Your task to perform on an android device: change keyboard looks Image 0: 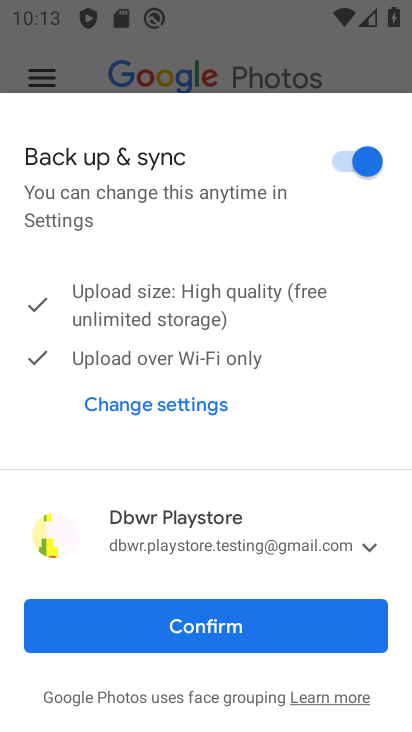
Step 0: press home button
Your task to perform on an android device: change keyboard looks Image 1: 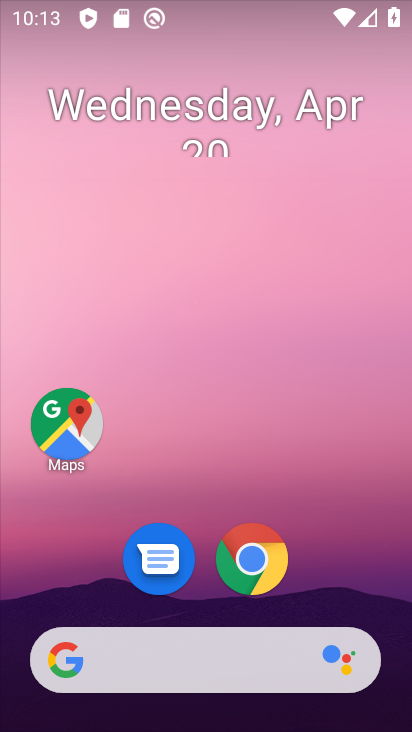
Step 1: drag from (208, 727) to (197, 169)
Your task to perform on an android device: change keyboard looks Image 2: 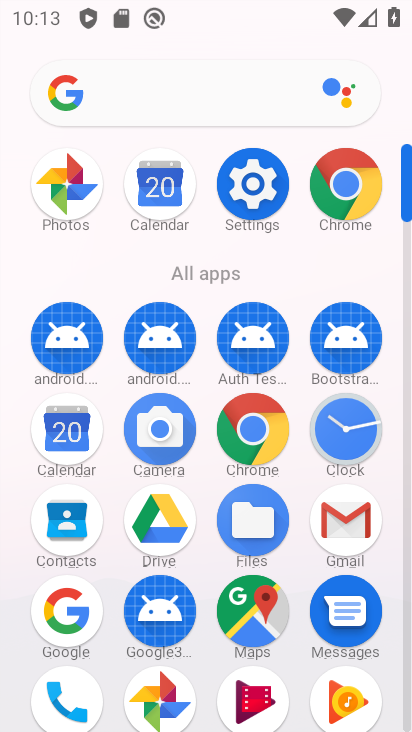
Step 2: click (252, 190)
Your task to perform on an android device: change keyboard looks Image 3: 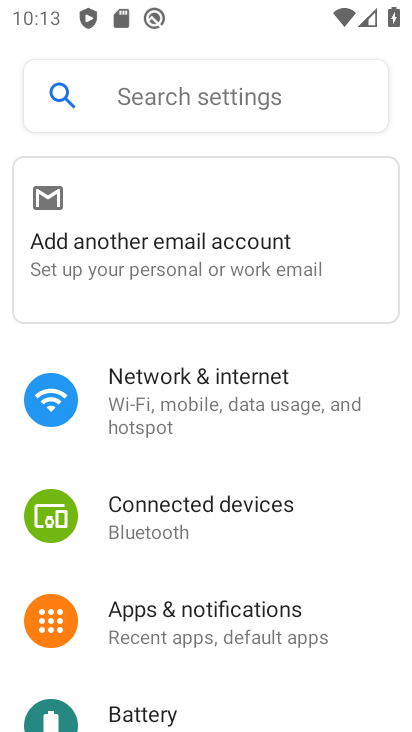
Step 3: drag from (235, 674) to (233, 219)
Your task to perform on an android device: change keyboard looks Image 4: 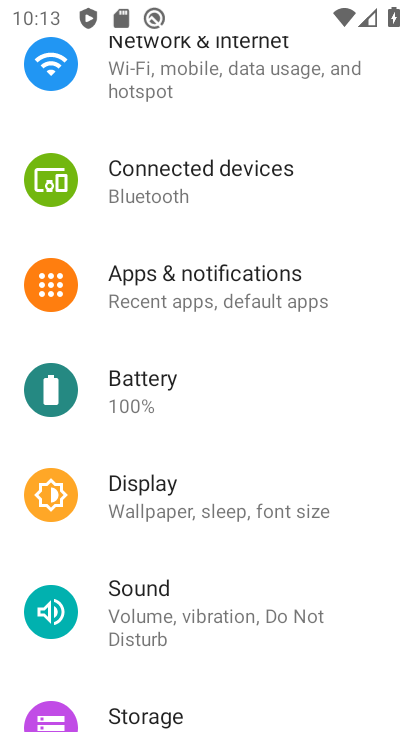
Step 4: drag from (199, 688) to (208, 164)
Your task to perform on an android device: change keyboard looks Image 5: 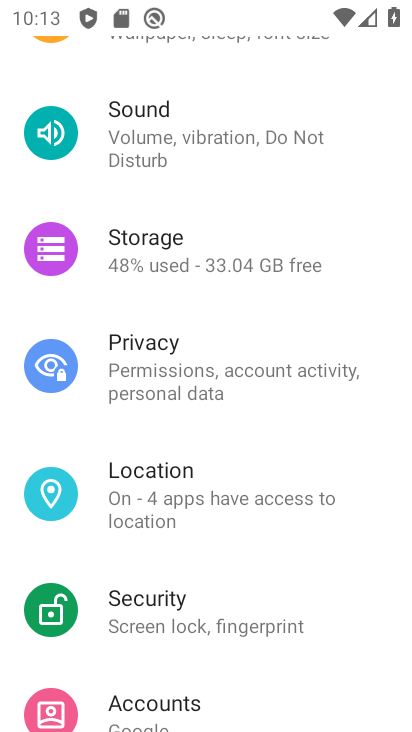
Step 5: drag from (196, 689) to (214, 218)
Your task to perform on an android device: change keyboard looks Image 6: 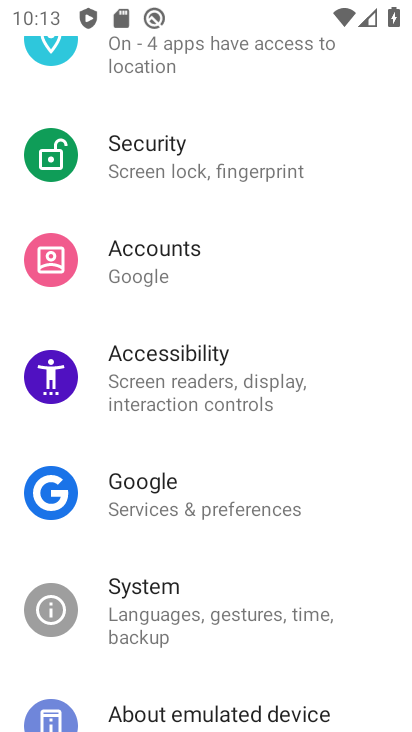
Step 6: click (131, 607)
Your task to perform on an android device: change keyboard looks Image 7: 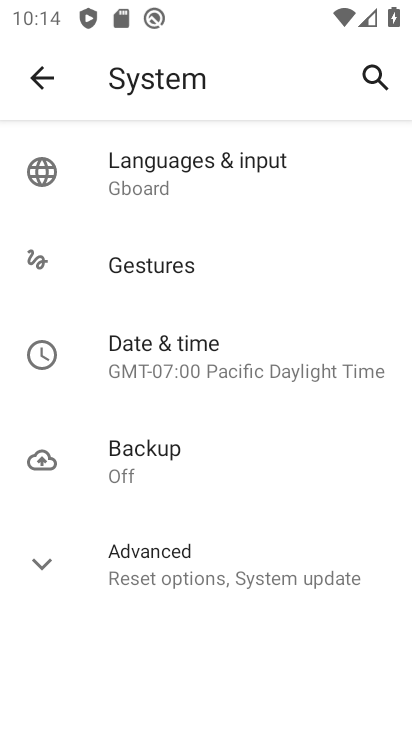
Step 7: click (145, 170)
Your task to perform on an android device: change keyboard looks Image 8: 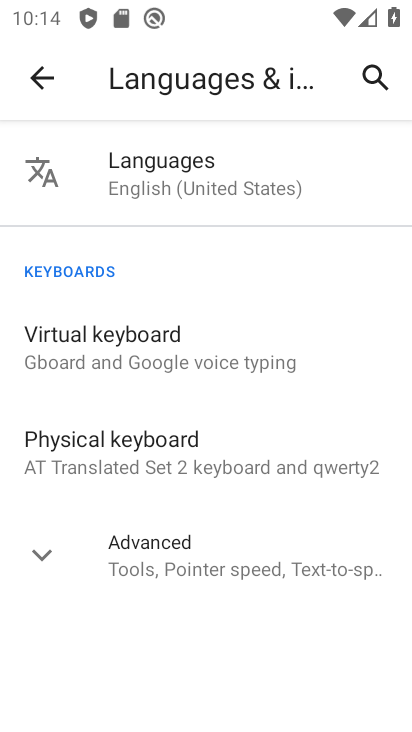
Step 8: click (122, 348)
Your task to perform on an android device: change keyboard looks Image 9: 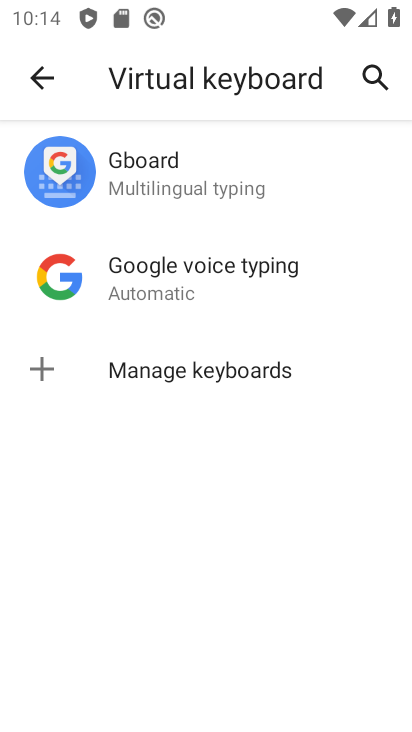
Step 9: click (140, 179)
Your task to perform on an android device: change keyboard looks Image 10: 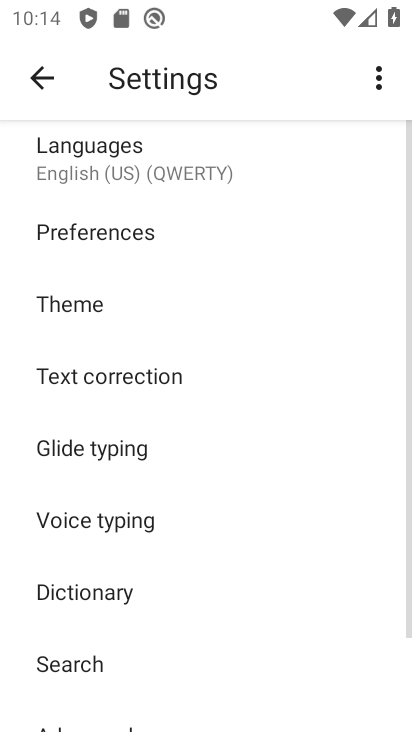
Step 10: click (69, 301)
Your task to perform on an android device: change keyboard looks Image 11: 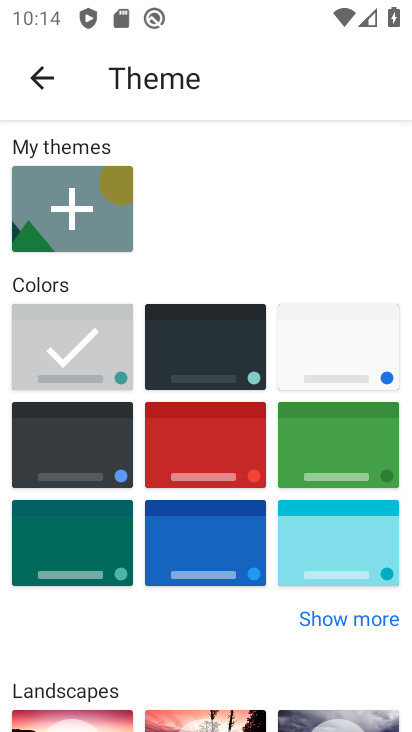
Step 11: click (202, 365)
Your task to perform on an android device: change keyboard looks Image 12: 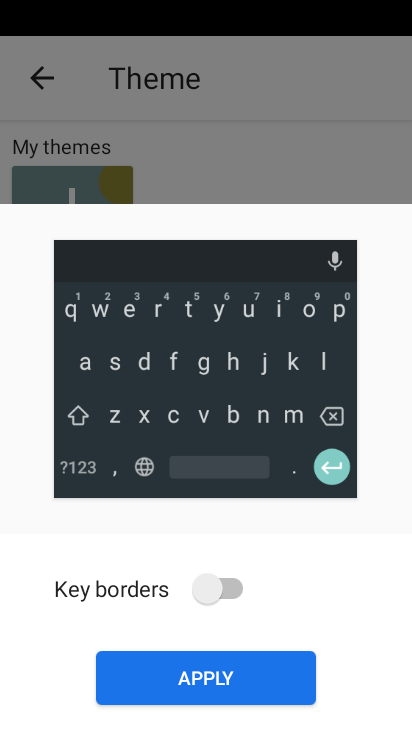
Step 12: click (232, 588)
Your task to perform on an android device: change keyboard looks Image 13: 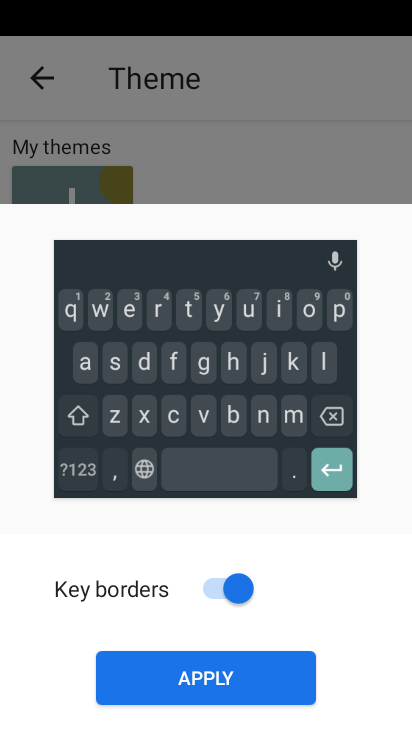
Step 13: click (209, 676)
Your task to perform on an android device: change keyboard looks Image 14: 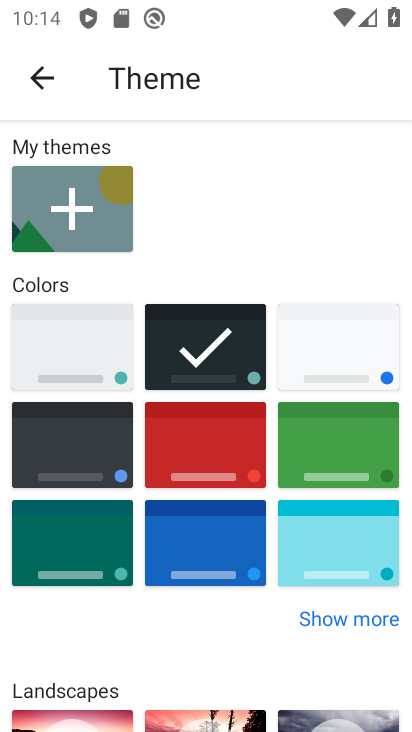
Step 14: task complete